Your task to perform on an android device: Set an alarm for 4pm Image 0: 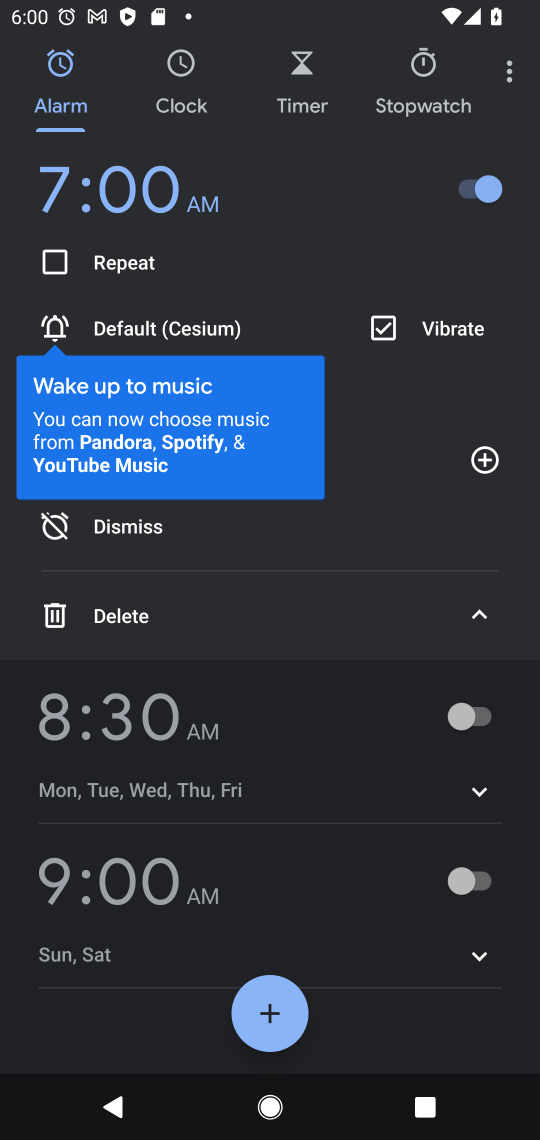
Step 0: click (260, 1011)
Your task to perform on an android device: Set an alarm for 4pm Image 1: 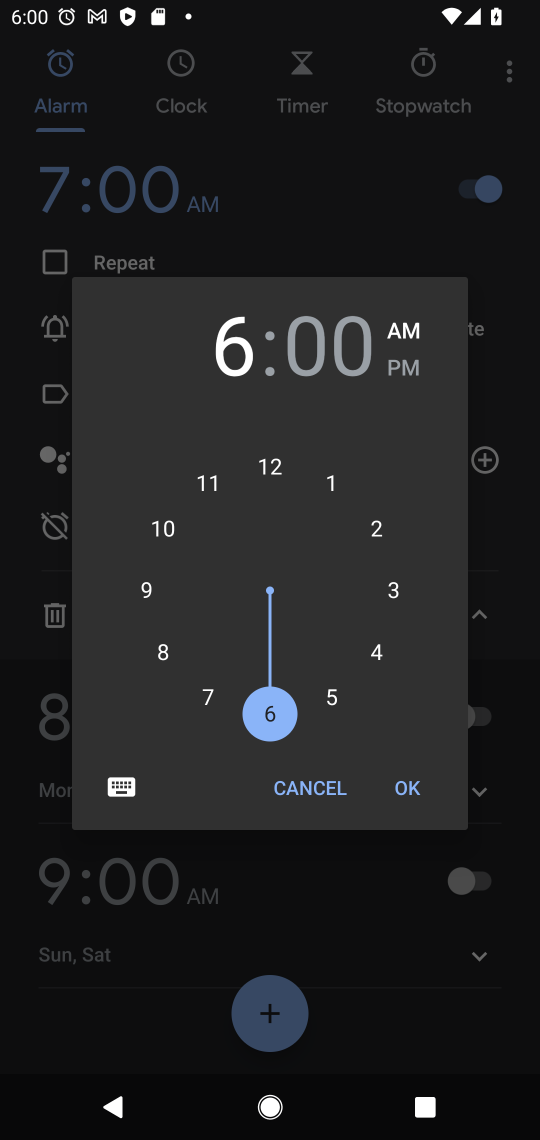
Step 1: click (401, 368)
Your task to perform on an android device: Set an alarm for 4pm Image 2: 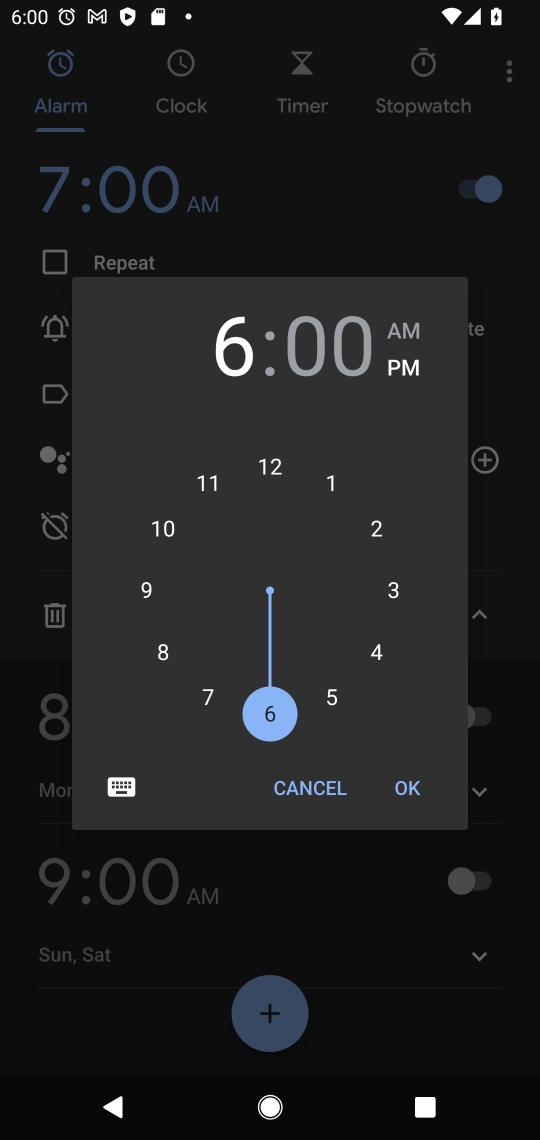
Step 2: click (378, 654)
Your task to perform on an android device: Set an alarm for 4pm Image 3: 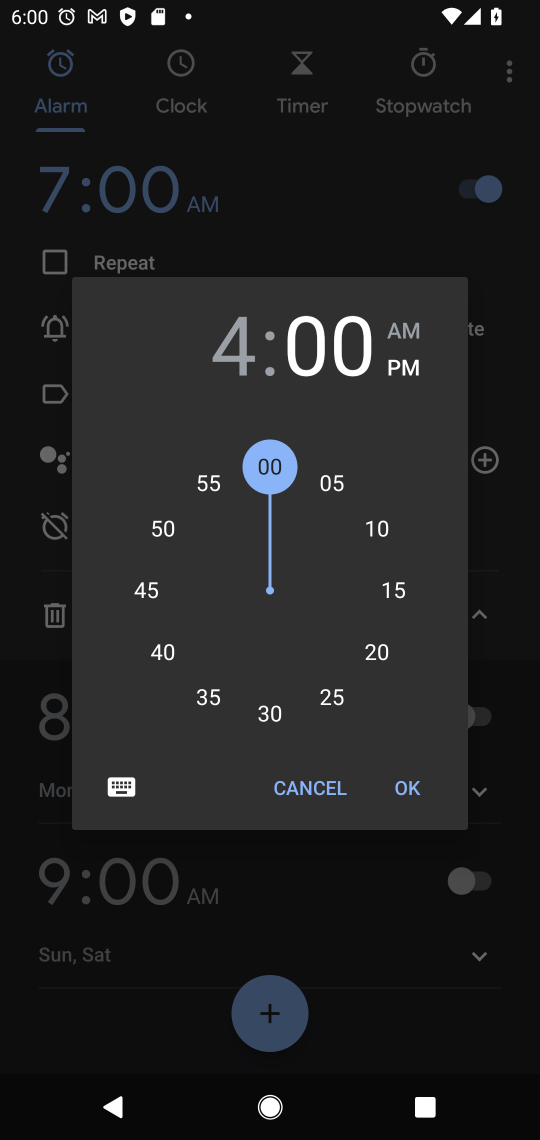
Step 3: click (408, 782)
Your task to perform on an android device: Set an alarm for 4pm Image 4: 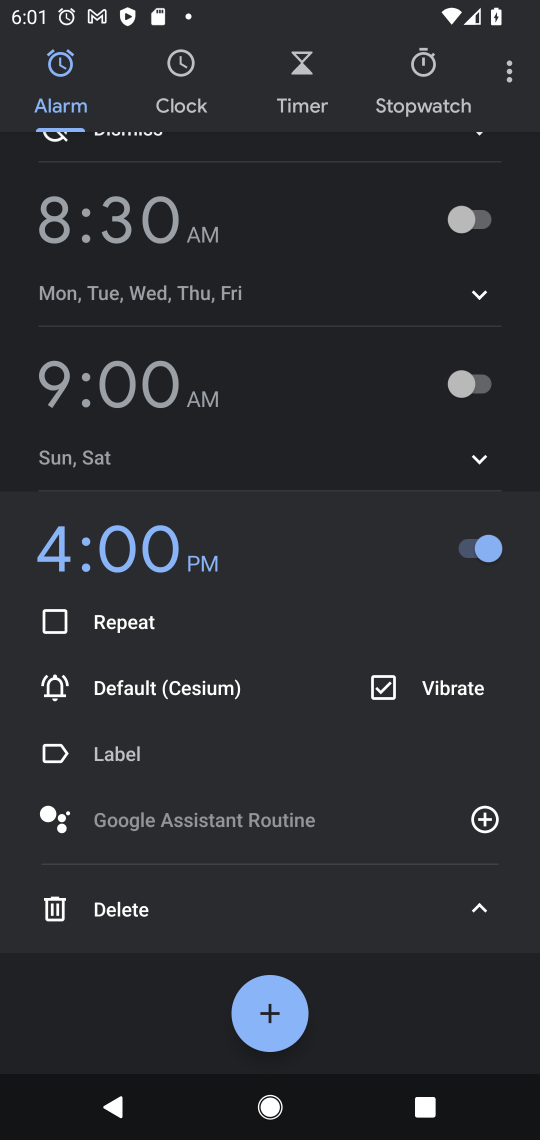
Step 4: task complete